Your task to perform on an android device: empty trash in the gmail app Image 0: 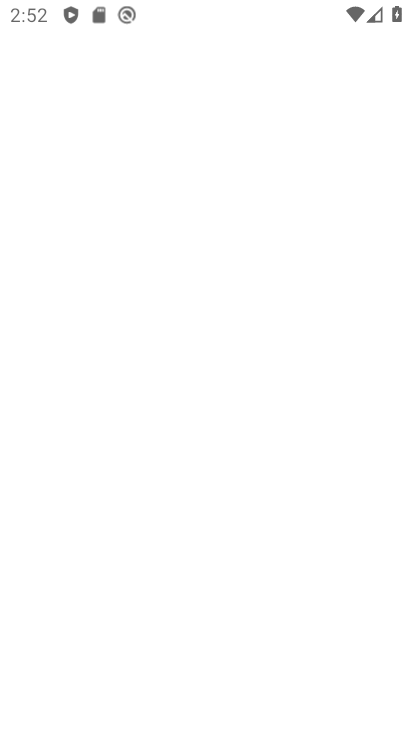
Step 0: press home button
Your task to perform on an android device: empty trash in the gmail app Image 1: 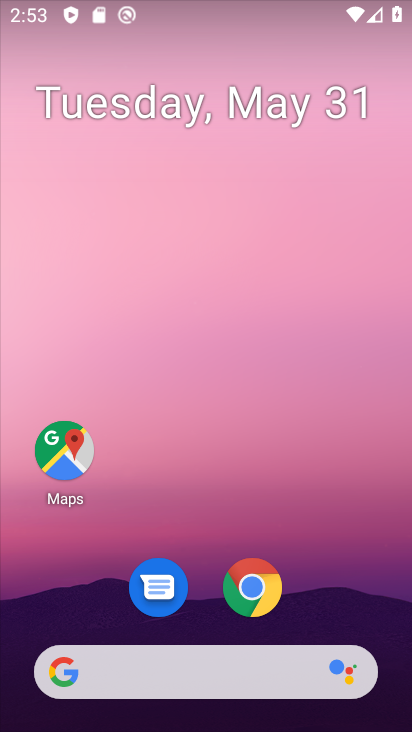
Step 1: drag from (334, 614) to (323, 168)
Your task to perform on an android device: empty trash in the gmail app Image 2: 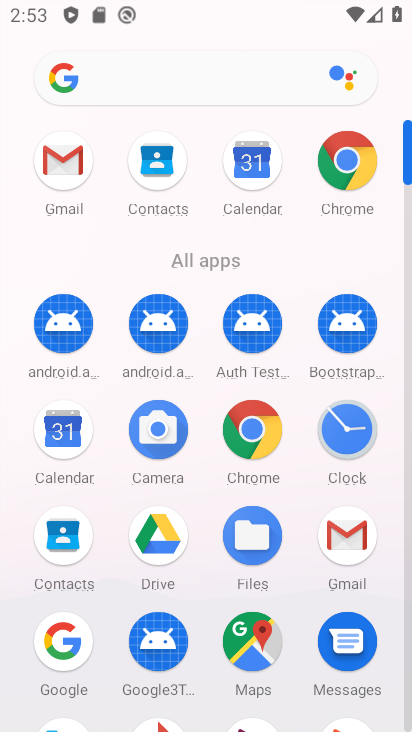
Step 2: drag from (294, 594) to (338, 133)
Your task to perform on an android device: empty trash in the gmail app Image 3: 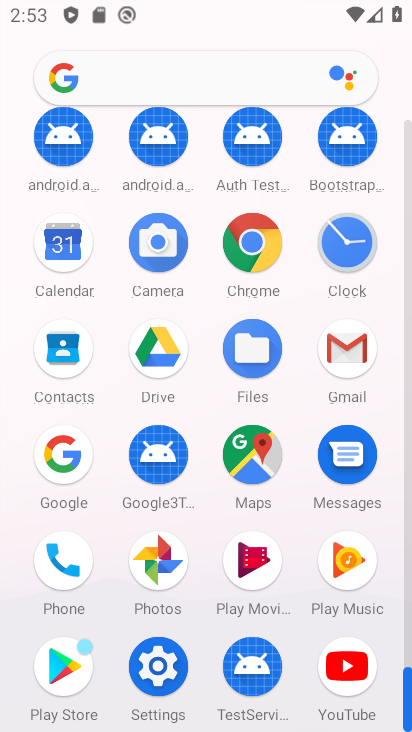
Step 3: click (150, 560)
Your task to perform on an android device: empty trash in the gmail app Image 4: 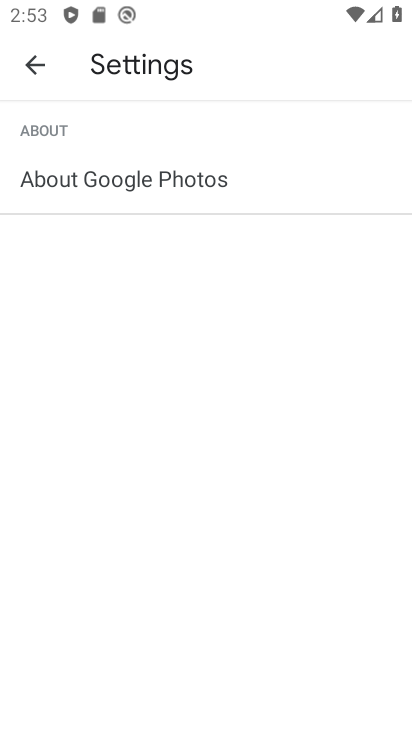
Step 4: click (40, 63)
Your task to perform on an android device: empty trash in the gmail app Image 5: 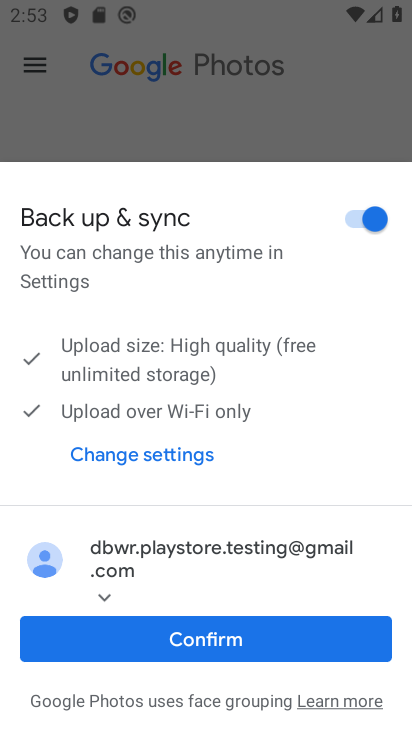
Step 5: click (200, 641)
Your task to perform on an android device: empty trash in the gmail app Image 6: 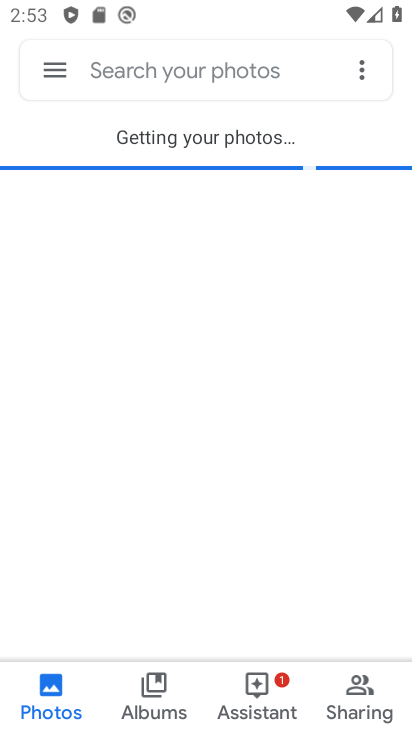
Step 6: click (60, 74)
Your task to perform on an android device: empty trash in the gmail app Image 7: 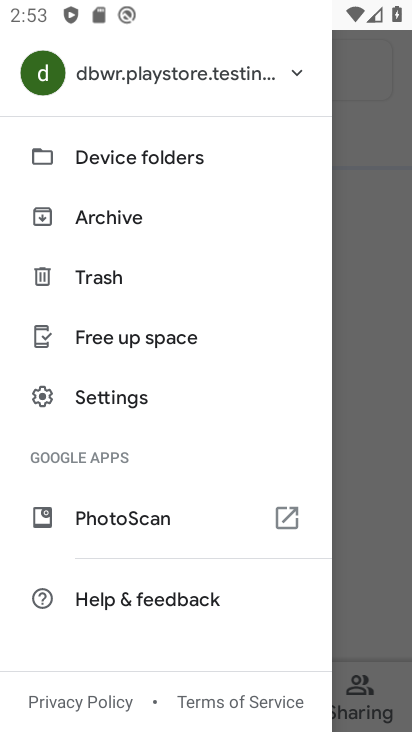
Step 7: click (107, 274)
Your task to perform on an android device: empty trash in the gmail app Image 8: 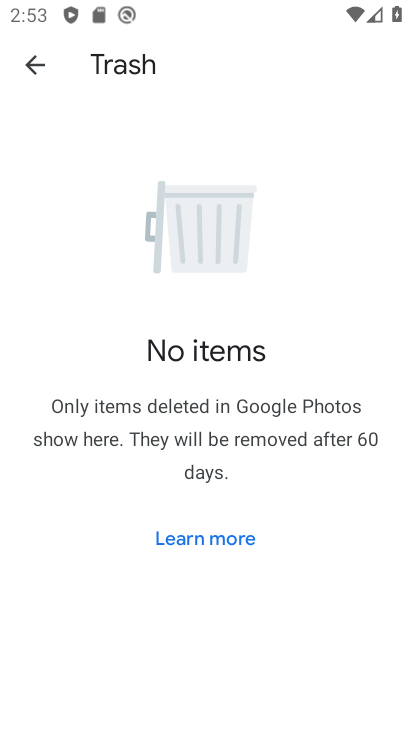
Step 8: task complete